Your task to perform on an android device: snooze an email in the gmail app Image 0: 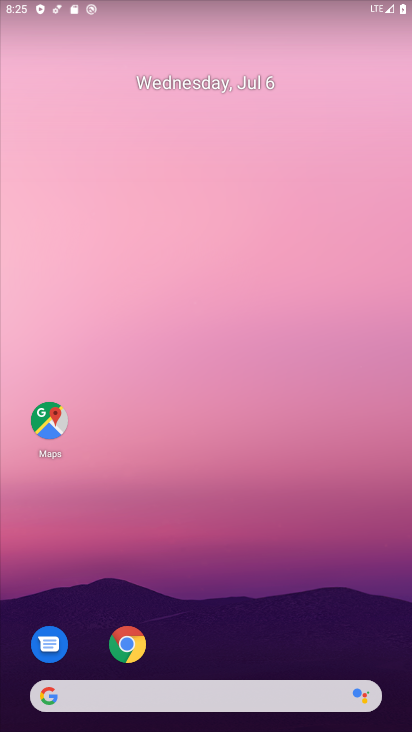
Step 0: drag from (222, 632) to (223, 106)
Your task to perform on an android device: snooze an email in the gmail app Image 1: 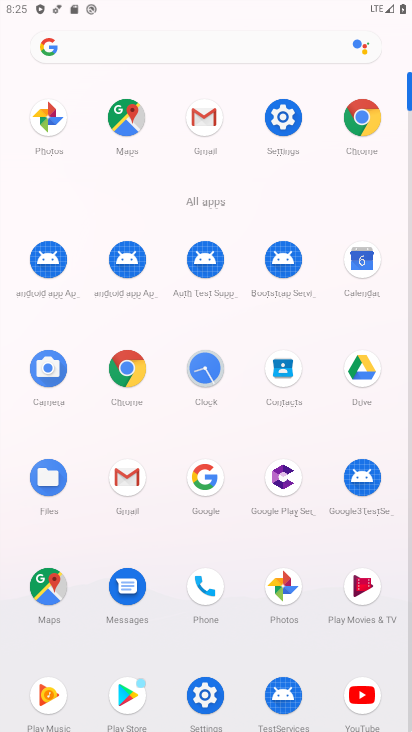
Step 1: click (210, 113)
Your task to perform on an android device: snooze an email in the gmail app Image 2: 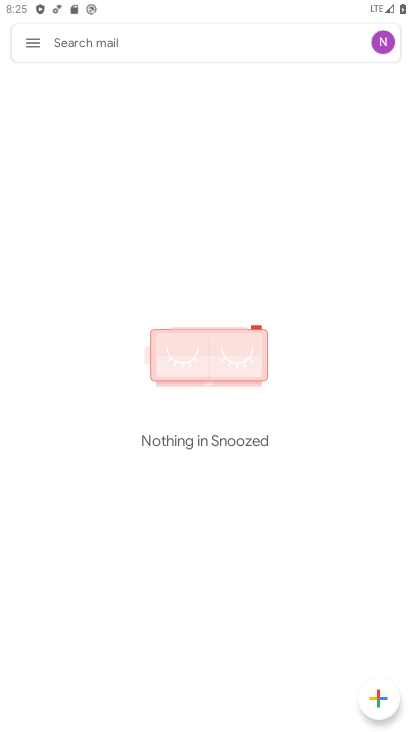
Step 2: task complete